Your task to perform on an android device: change the clock display to show seconds Image 0: 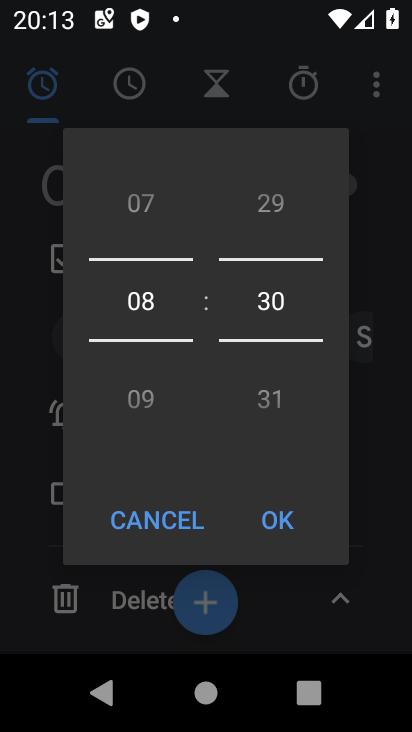
Step 0: press home button
Your task to perform on an android device: change the clock display to show seconds Image 1: 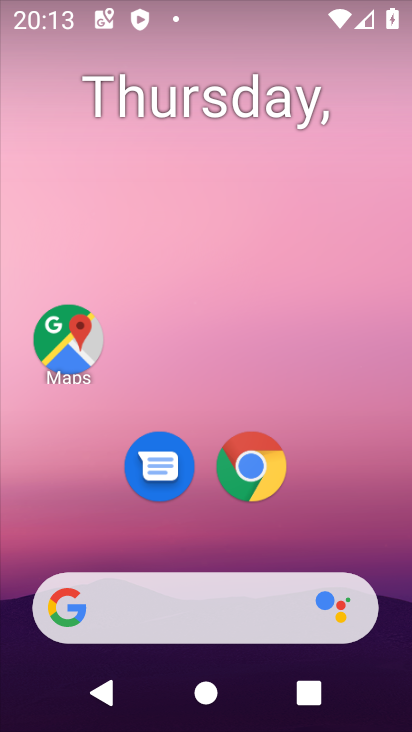
Step 1: drag from (346, 435) to (316, 119)
Your task to perform on an android device: change the clock display to show seconds Image 2: 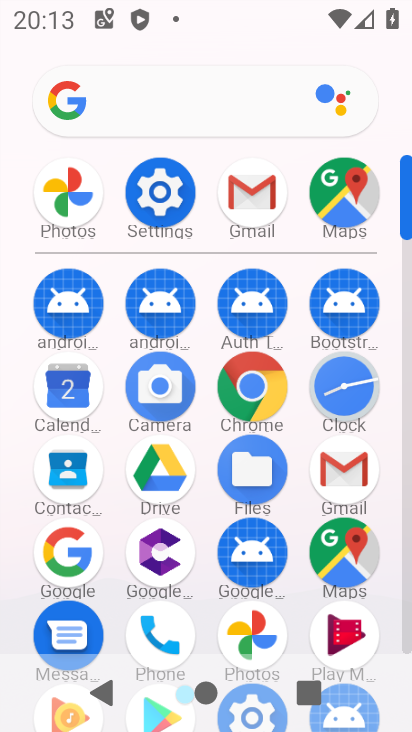
Step 2: click (343, 392)
Your task to perform on an android device: change the clock display to show seconds Image 3: 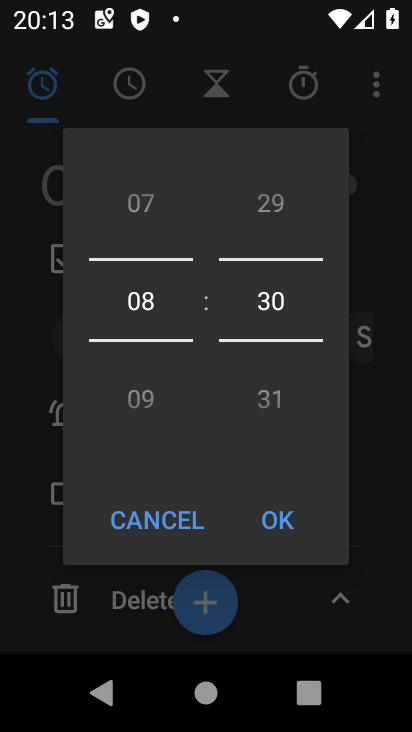
Step 3: click (268, 108)
Your task to perform on an android device: change the clock display to show seconds Image 4: 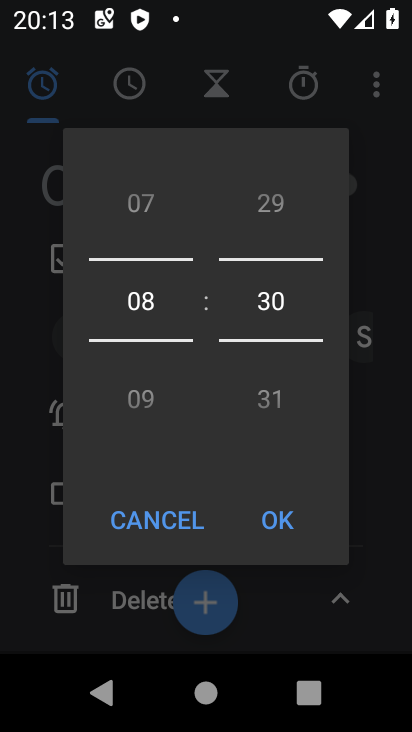
Step 4: click (170, 516)
Your task to perform on an android device: change the clock display to show seconds Image 5: 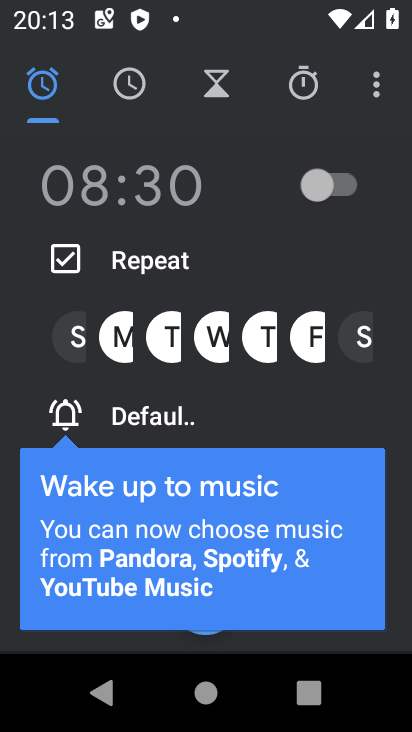
Step 5: click (382, 81)
Your task to perform on an android device: change the clock display to show seconds Image 6: 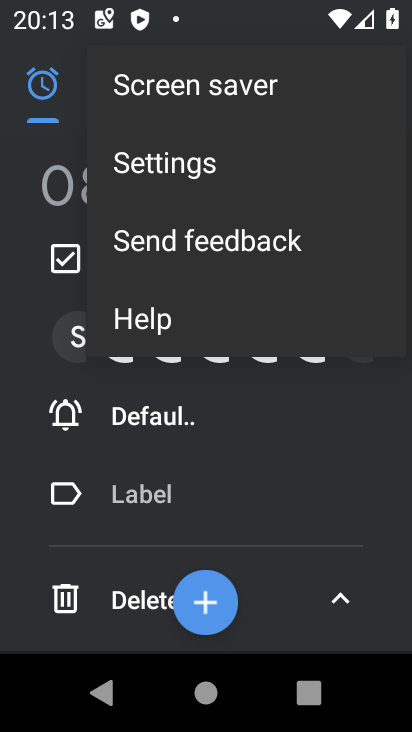
Step 6: click (168, 175)
Your task to perform on an android device: change the clock display to show seconds Image 7: 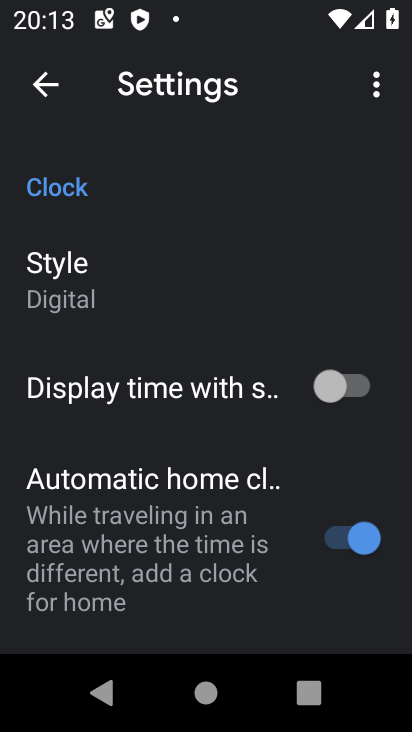
Step 7: click (353, 383)
Your task to perform on an android device: change the clock display to show seconds Image 8: 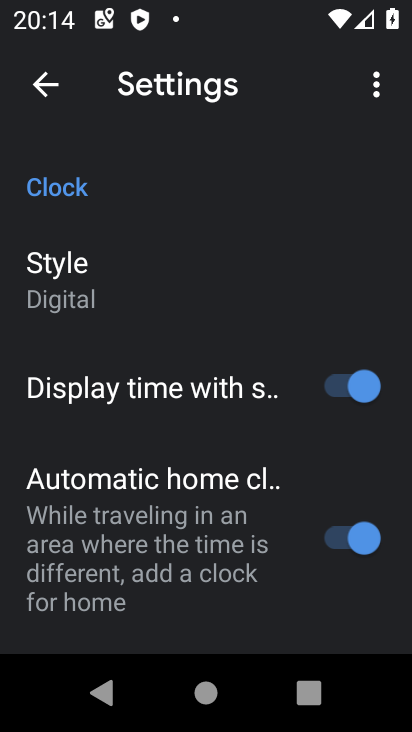
Step 8: task complete